Your task to perform on an android device: open a bookmark in the chrome app Image 0: 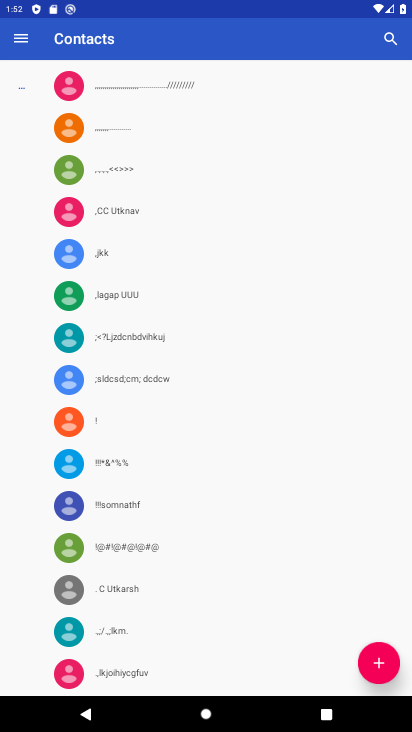
Step 0: press home button
Your task to perform on an android device: open a bookmark in the chrome app Image 1: 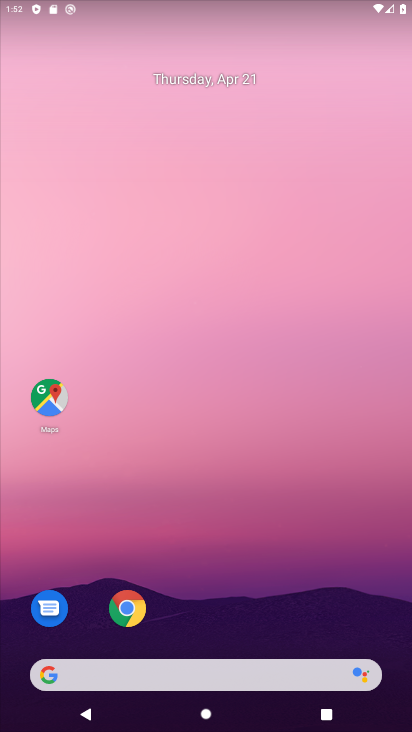
Step 1: click (129, 604)
Your task to perform on an android device: open a bookmark in the chrome app Image 2: 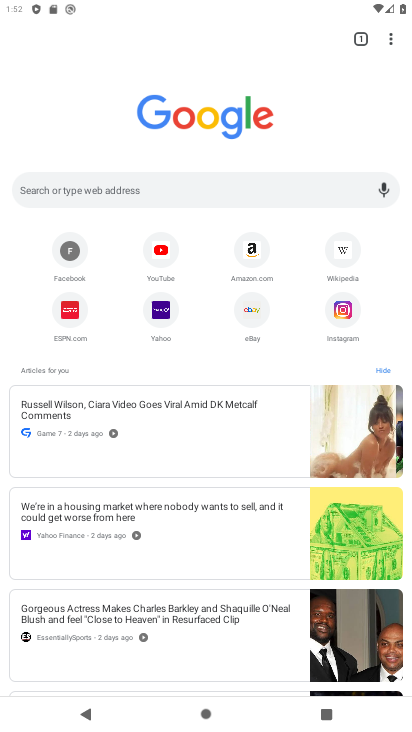
Step 2: task complete